Your task to perform on an android device: toggle airplane mode Image 0: 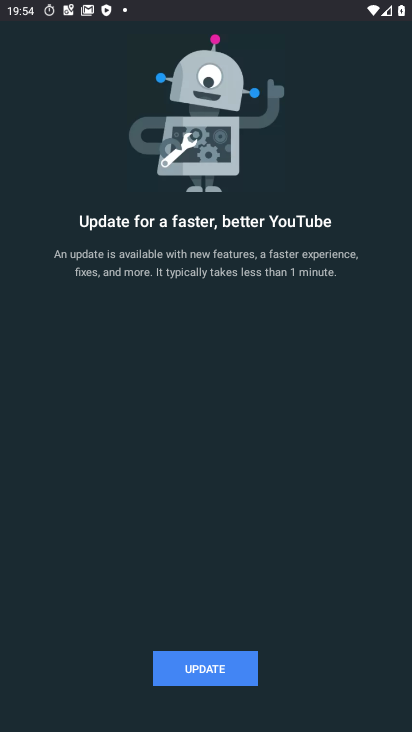
Step 0: press home button
Your task to perform on an android device: toggle airplane mode Image 1: 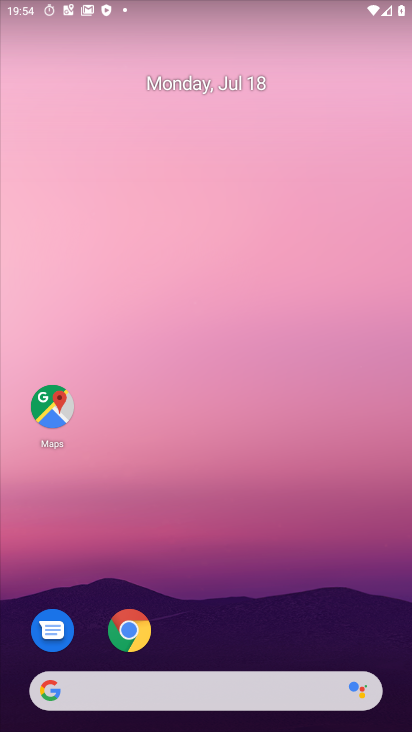
Step 1: drag from (276, 557) to (220, 35)
Your task to perform on an android device: toggle airplane mode Image 2: 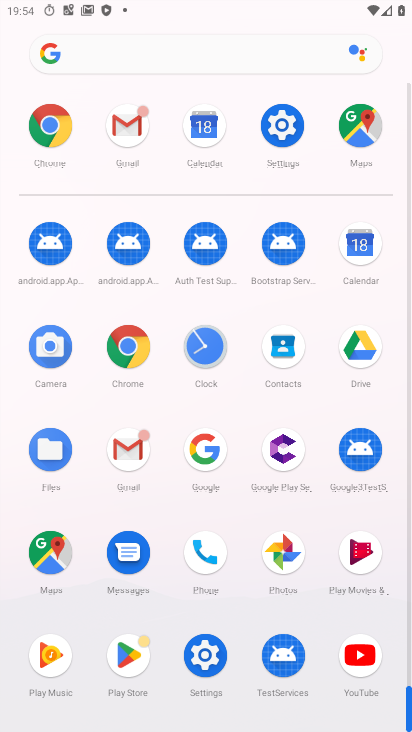
Step 2: click (286, 139)
Your task to perform on an android device: toggle airplane mode Image 3: 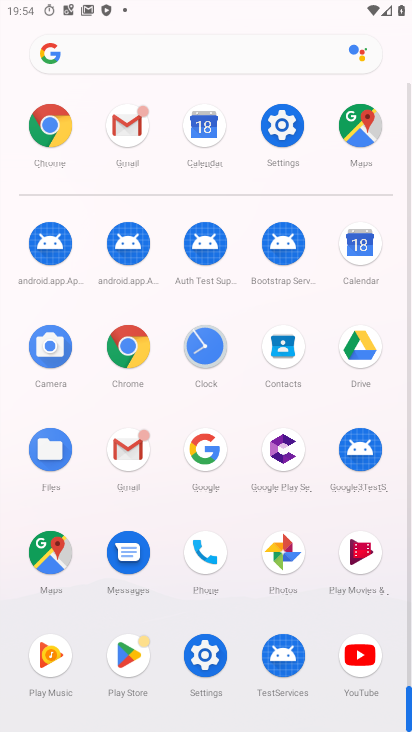
Step 3: click (289, 128)
Your task to perform on an android device: toggle airplane mode Image 4: 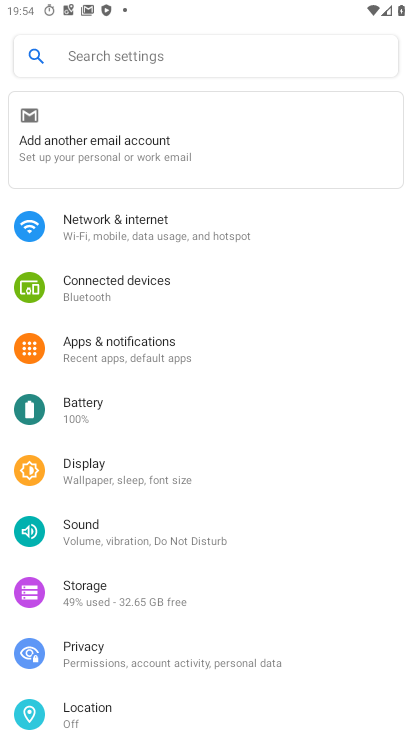
Step 4: click (125, 233)
Your task to perform on an android device: toggle airplane mode Image 5: 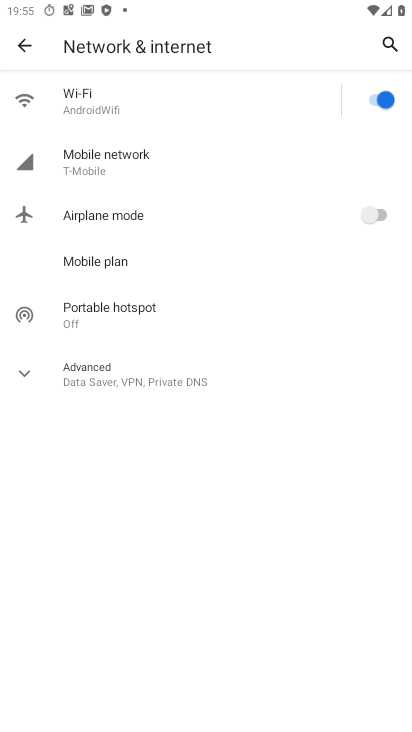
Step 5: click (366, 224)
Your task to perform on an android device: toggle airplane mode Image 6: 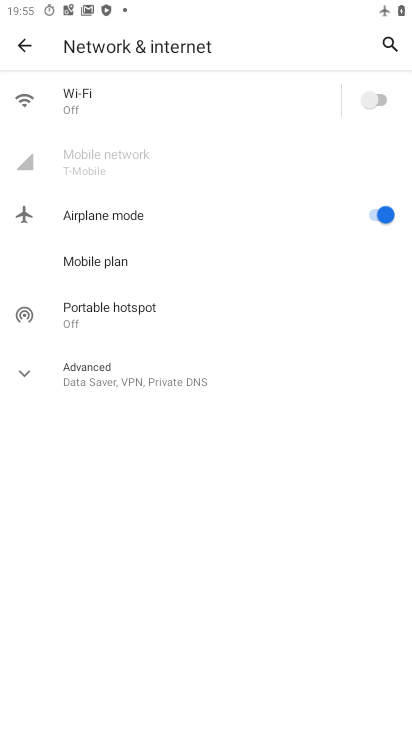
Step 6: task complete